Your task to perform on an android device: open app "McDonald's" (install if not already installed) and enter user name: "copes@yahoo.com" and password: "Rhenish" Image 0: 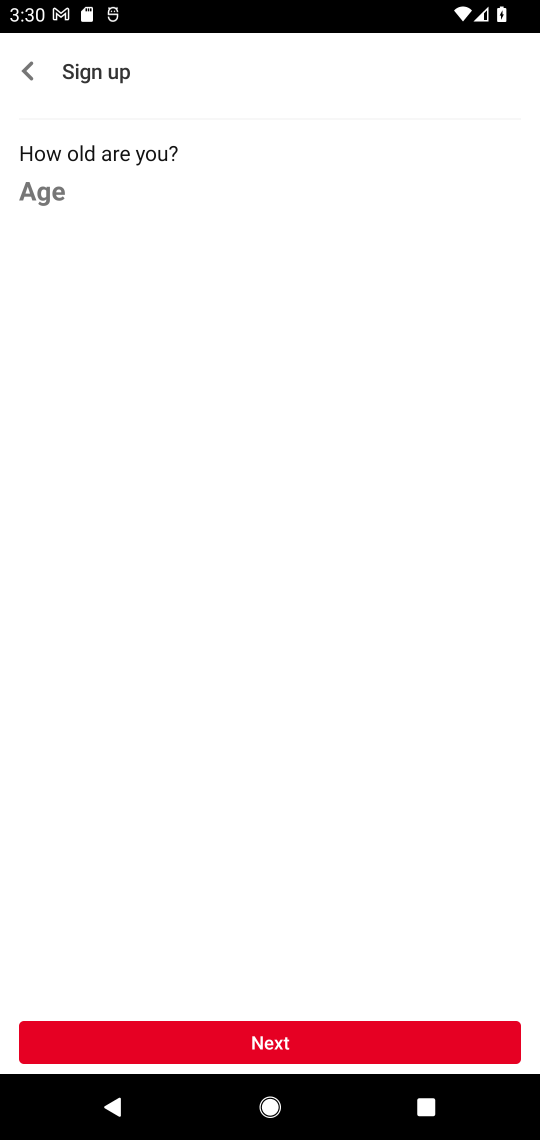
Step 0: press home button
Your task to perform on an android device: open app "McDonald's" (install if not already installed) and enter user name: "copes@yahoo.com" and password: "Rhenish" Image 1: 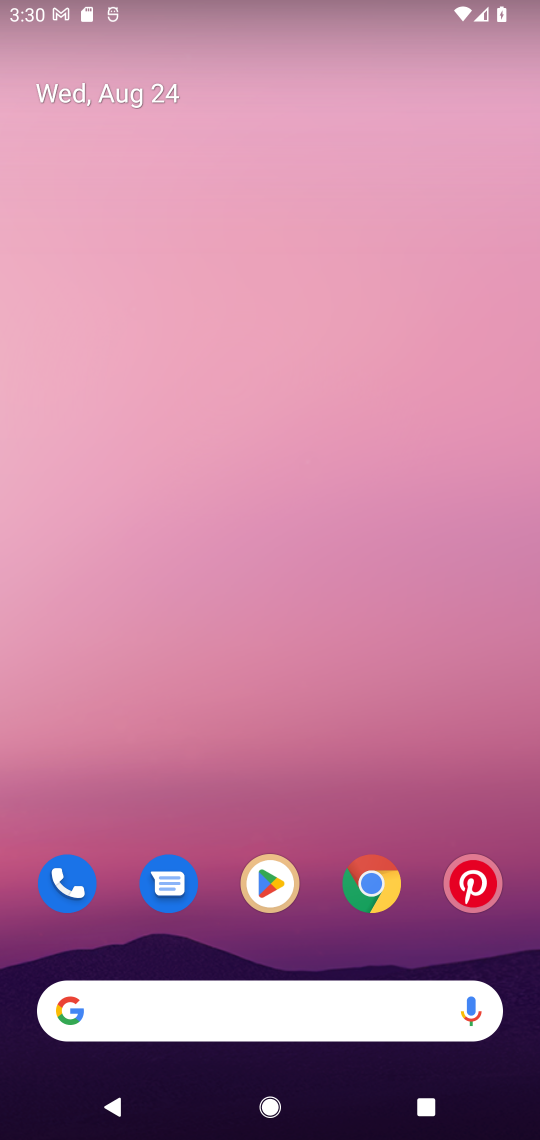
Step 1: drag from (282, 993) to (266, 409)
Your task to perform on an android device: open app "McDonald's" (install if not already installed) and enter user name: "copes@yahoo.com" and password: "Rhenish" Image 2: 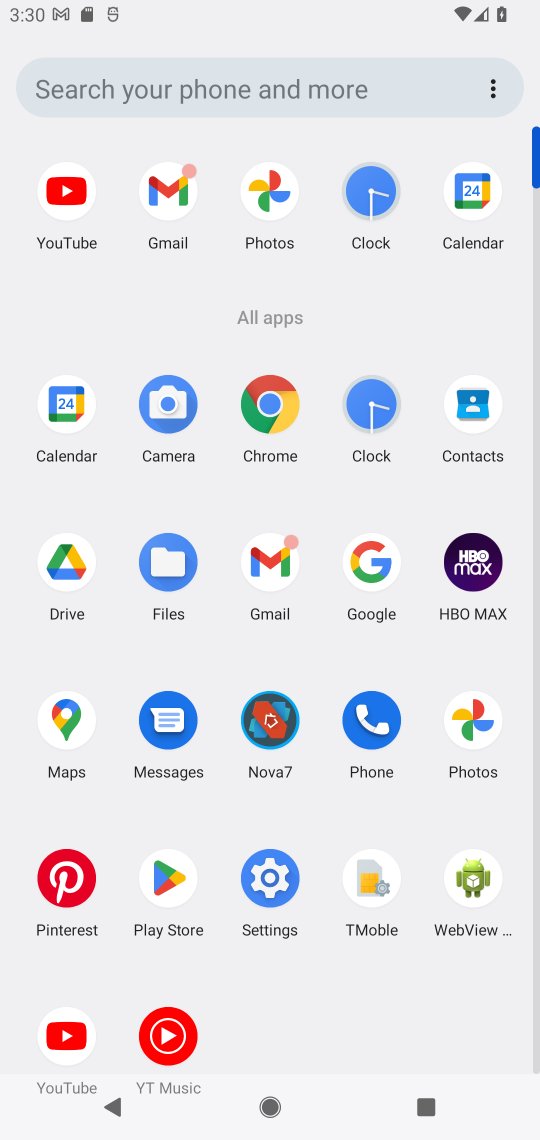
Step 2: click (157, 878)
Your task to perform on an android device: open app "McDonald's" (install if not already installed) and enter user name: "copes@yahoo.com" and password: "Rhenish" Image 3: 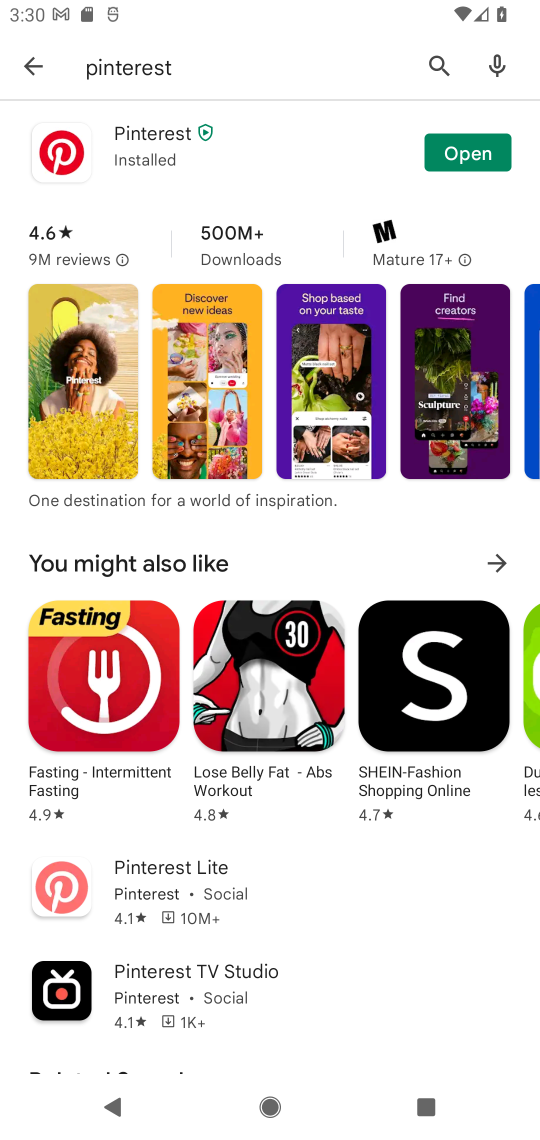
Step 3: click (430, 73)
Your task to perform on an android device: open app "McDonald's" (install if not already installed) and enter user name: "copes@yahoo.com" and password: "Rhenish" Image 4: 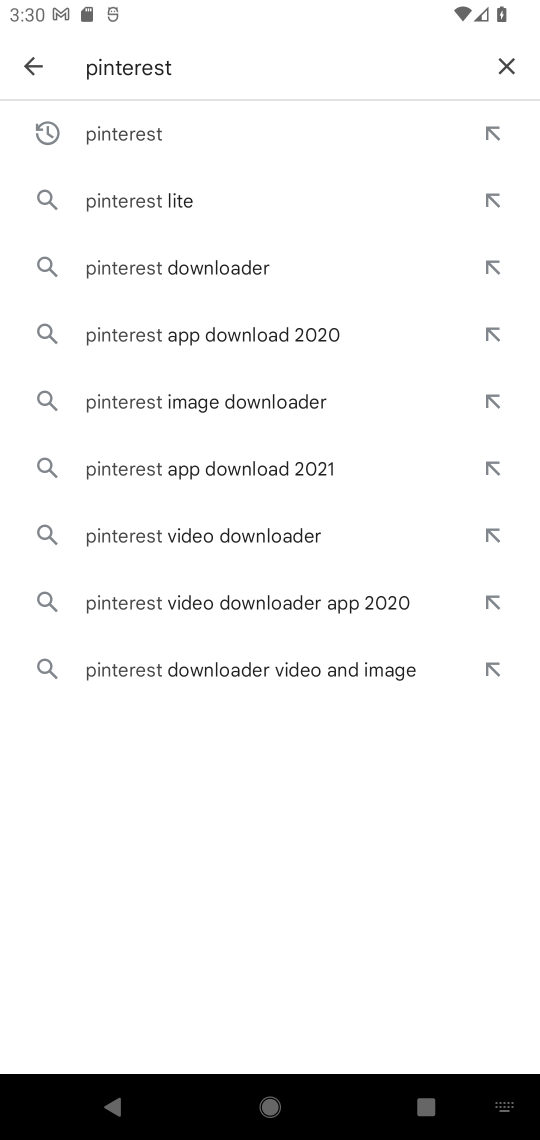
Step 4: click (503, 69)
Your task to perform on an android device: open app "McDonald's" (install if not already installed) and enter user name: "copes@yahoo.com" and password: "Rhenish" Image 5: 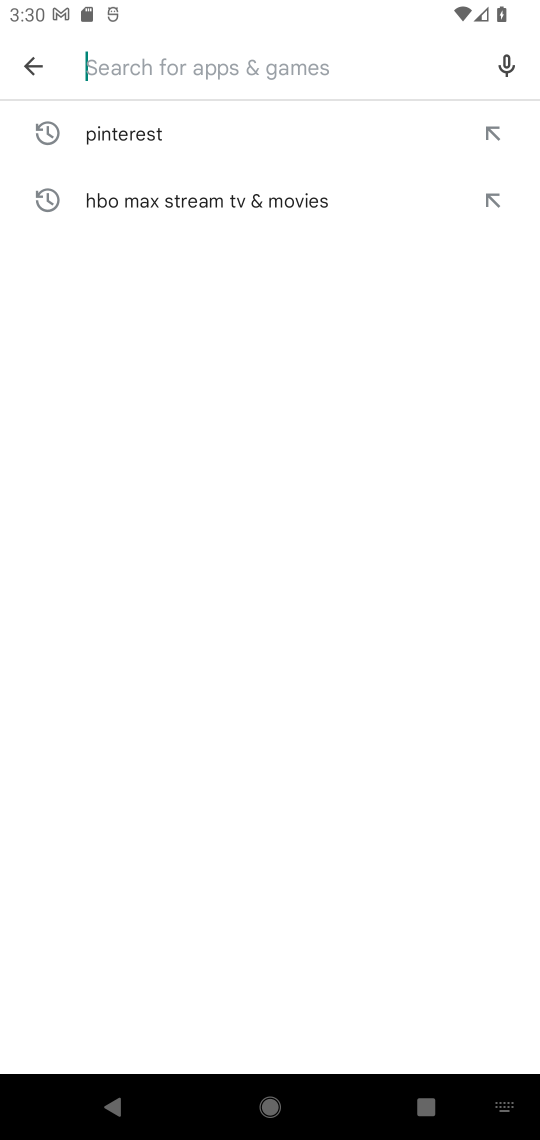
Step 5: type "McDonald's"
Your task to perform on an android device: open app "McDonald's" (install if not already installed) and enter user name: "copes@yahoo.com" and password: "Rhenish" Image 6: 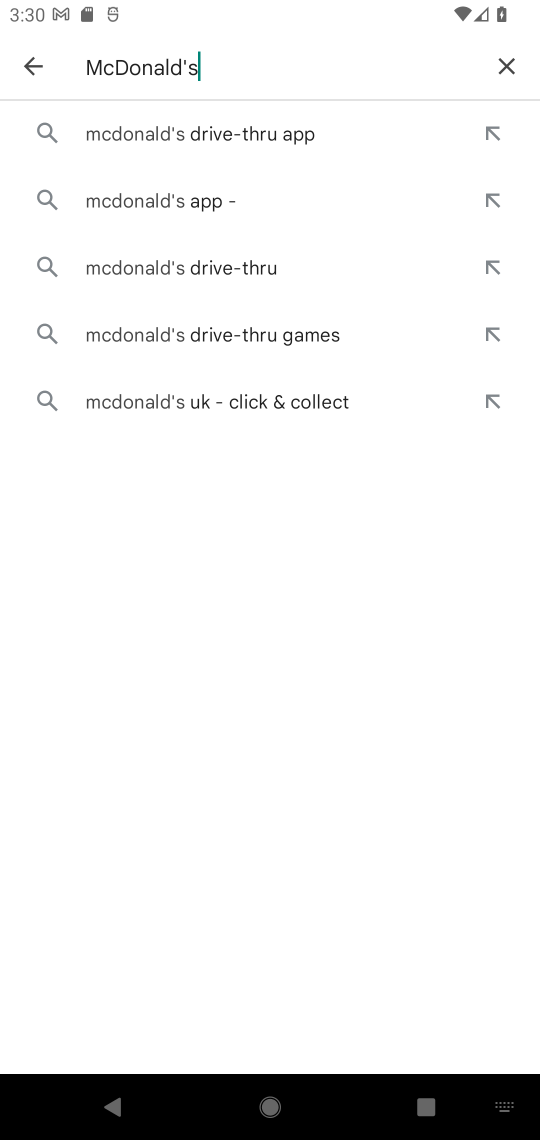
Step 6: click (135, 204)
Your task to perform on an android device: open app "McDonald's" (install if not already installed) and enter user name: "copes@yahoo.com" and password: "Rhenish" Image 7: 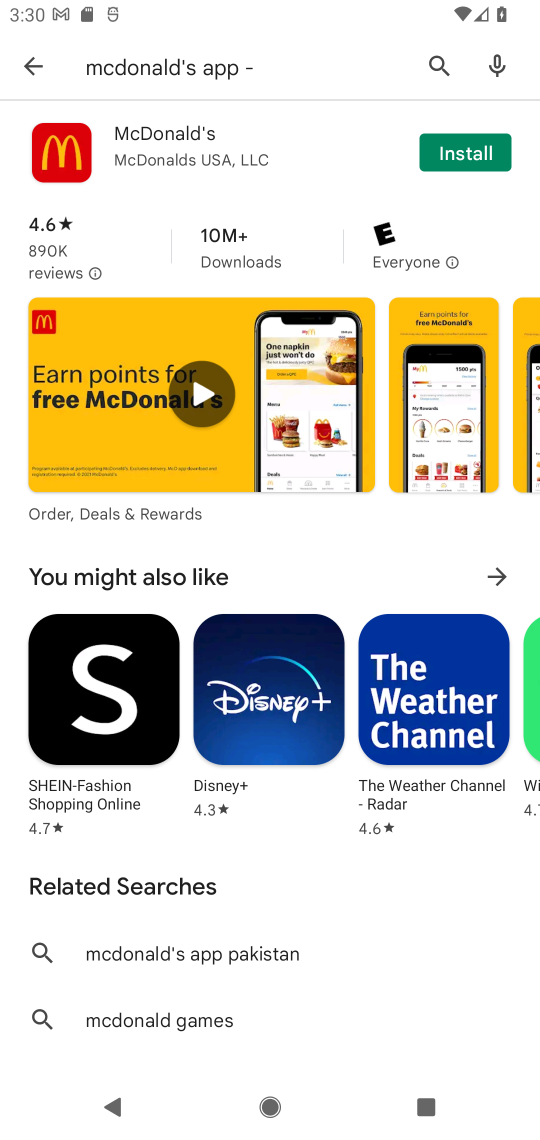
Step 7: click (429, 160)
Your task to perform on an android device: open app "McDonald's" (install if not already installed) and enter user name: "copes@yahoo.com" and password: "Rhenish" Image 8: 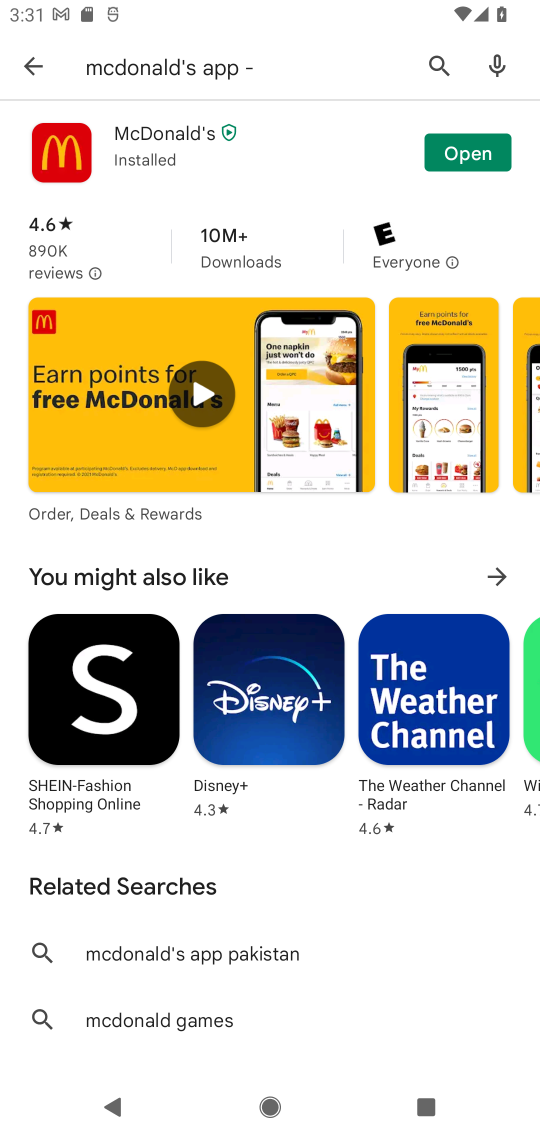
Step 8: click (472, 153)
Your task to perform on an android device: open app "McDonald's" (install if not already installed) and enter user name: "copes@yahoo.com" and password: "Rhenish" Image 9: 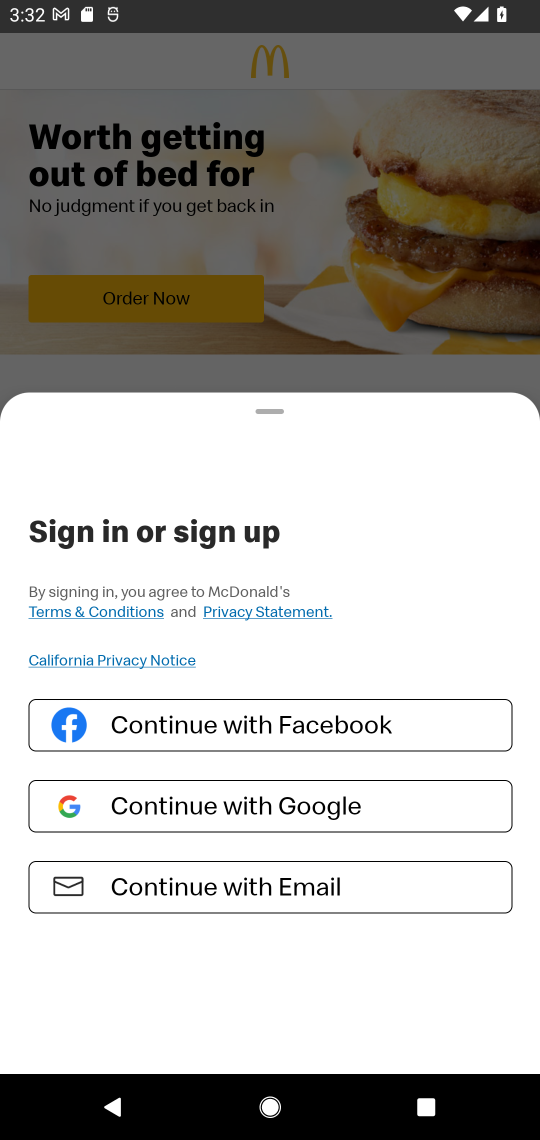
Step 9: task complete